Your task to perform on an android device: Add razer blackwidow to the cart on ebay.com Image 0: 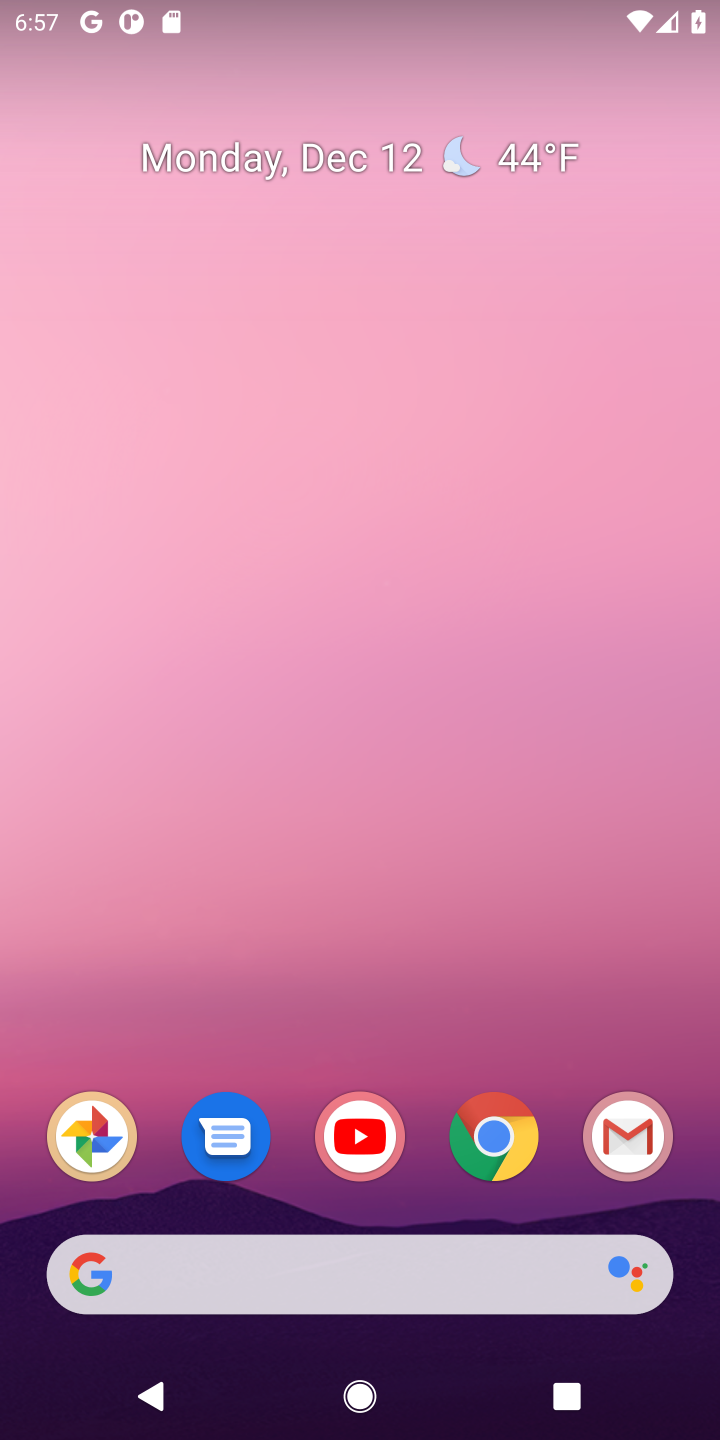
Step 0: click (488, 1144)
Your task to perform on an android device: Add razer blackwidow to the cart on ebay.com Image 1: 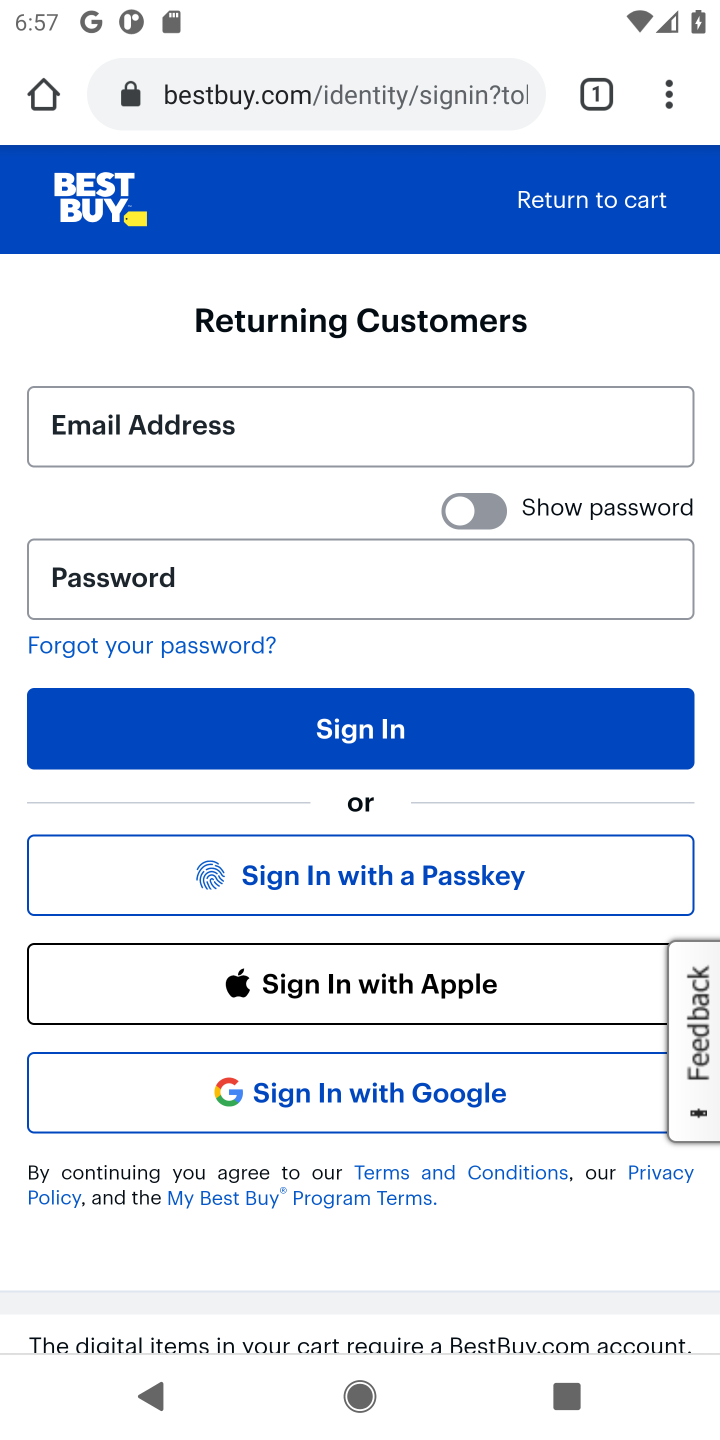
Step 1: click (296, 103)
Your task to perform on an android device: Add razer blackwidow to the cart on ebay.com Image 2: 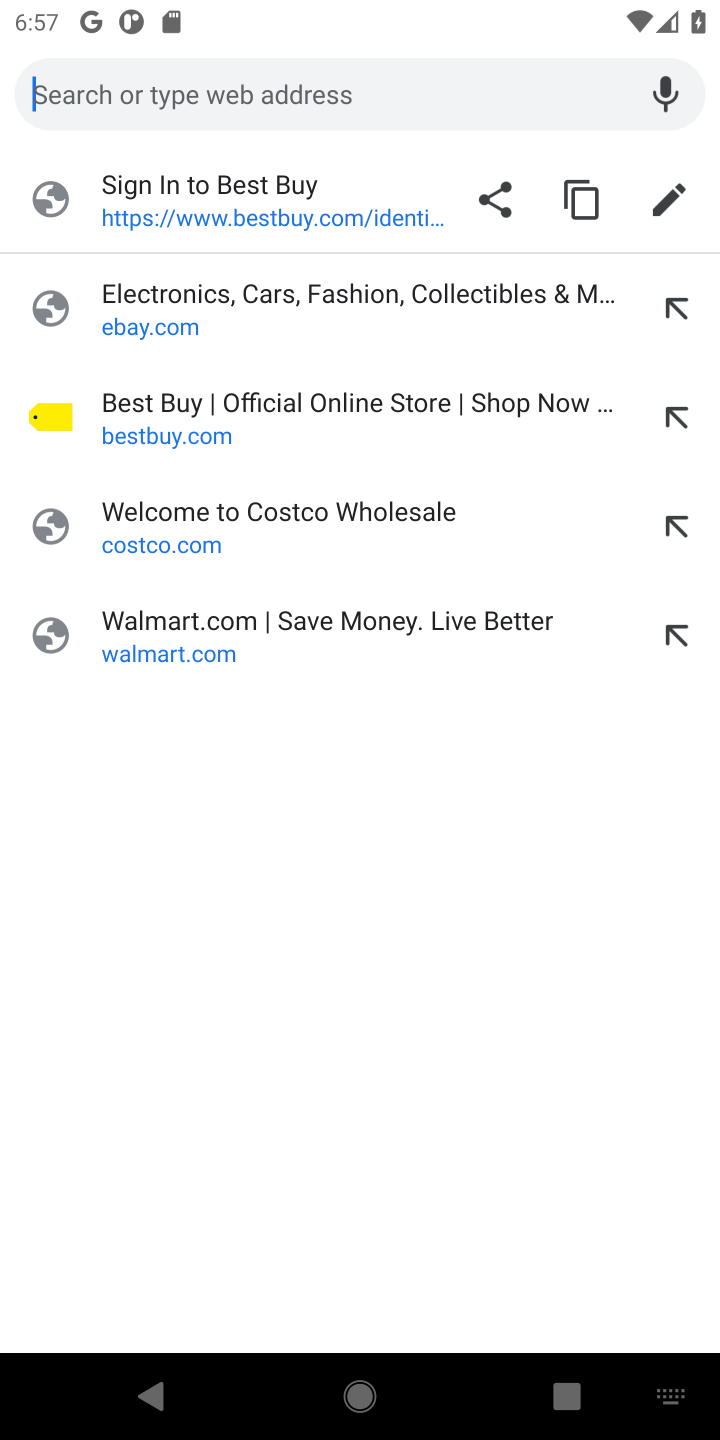
Step 2: click (151, 308)
Your task to perform on an android device: Add razer blackwidow to the cart on ebay.com Image 3: 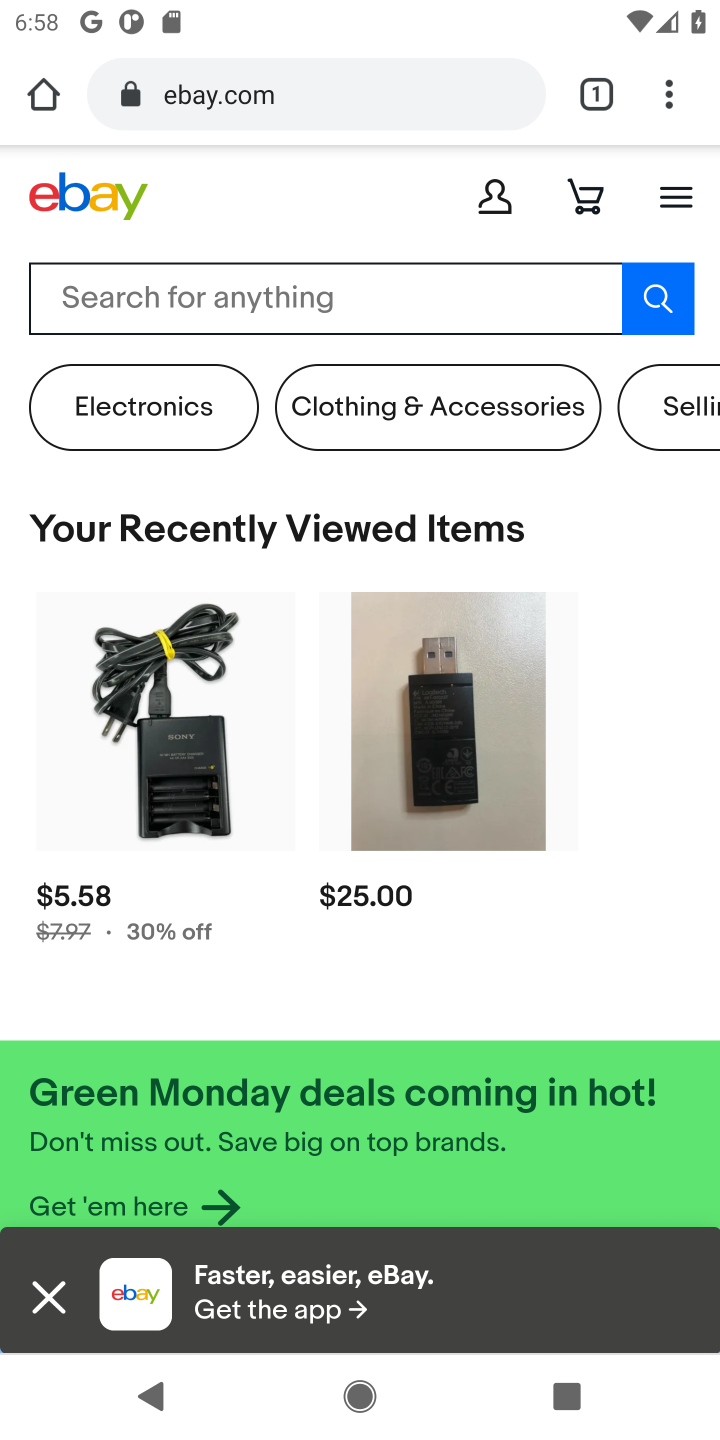
Step 3: click (213, 305)
Your task to perform on an android device: Add razer blackwidow to the cart on ebay.com Image 4: 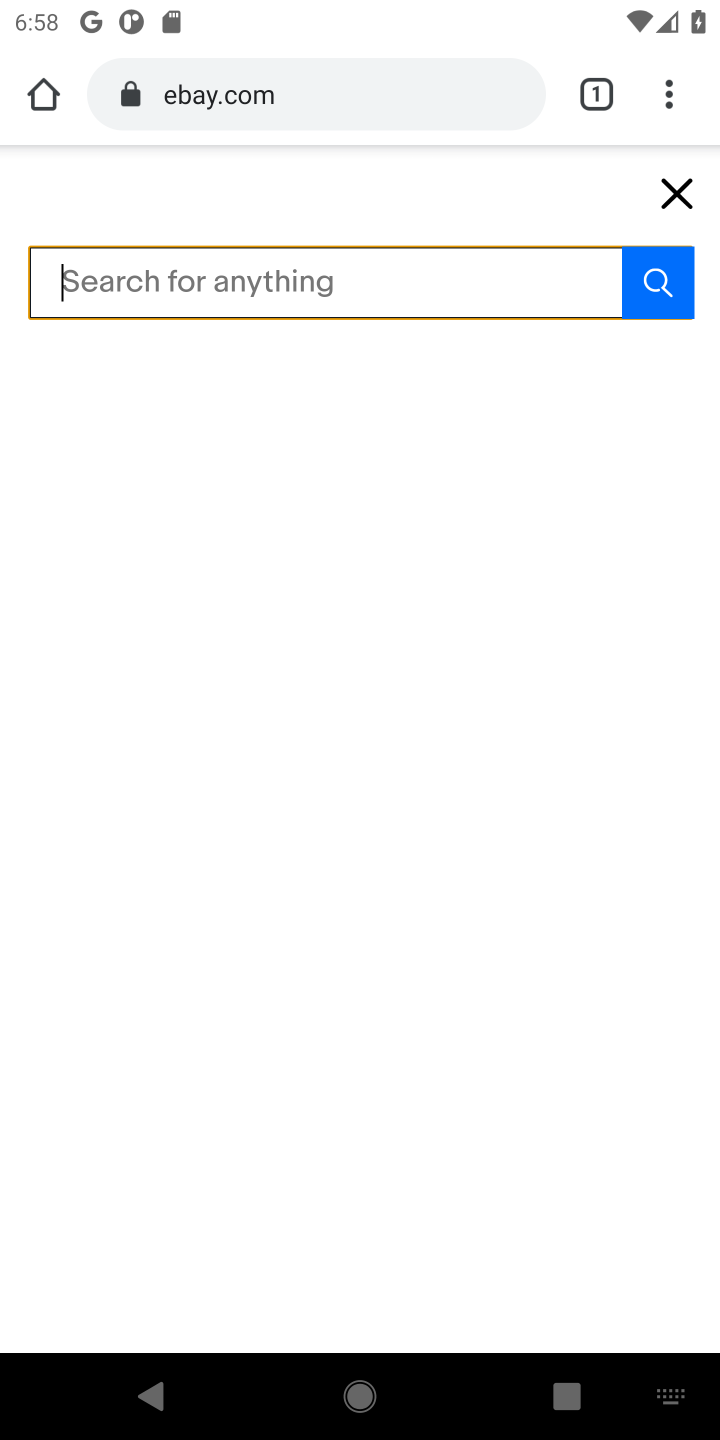
Step 4: type "razer blackwidow"
Your task to perform on an android device: Add razer blackwidow to the cart on ebay.com Image 5: 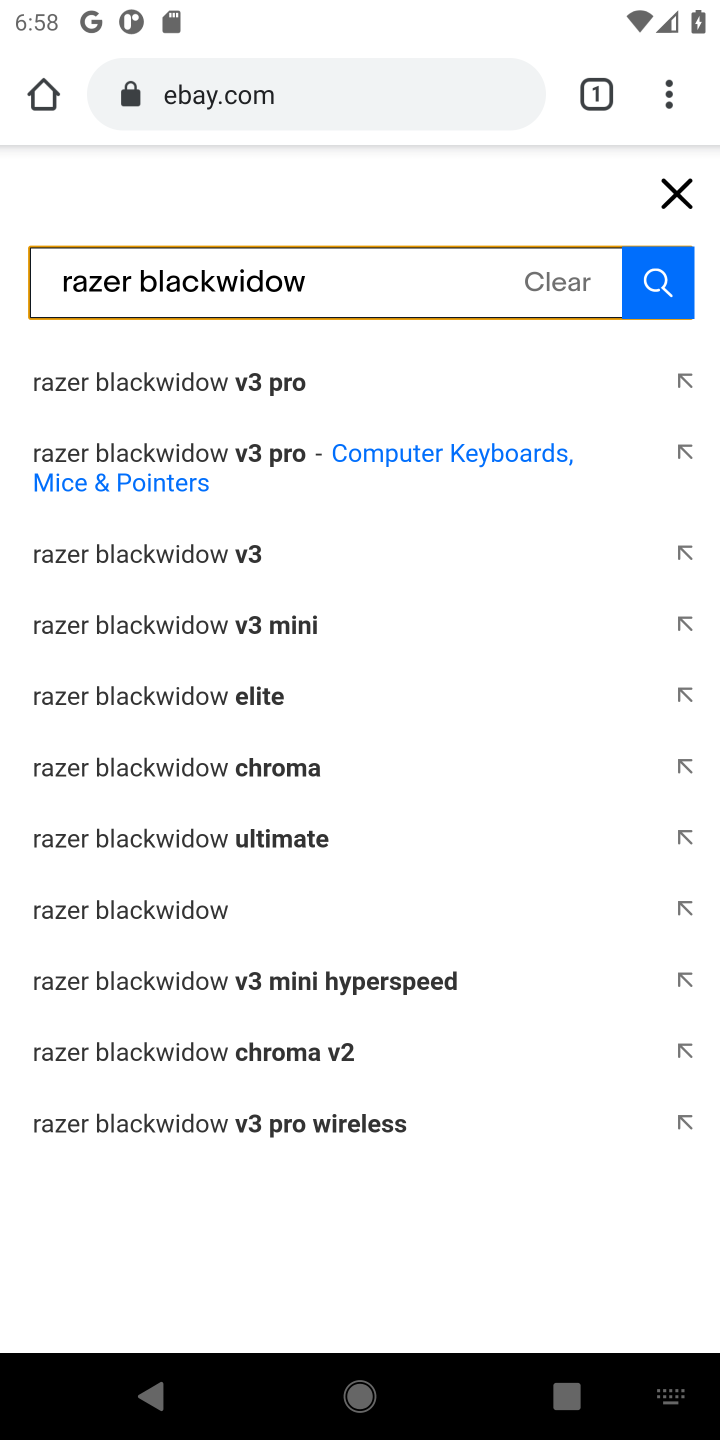
Step 5: click (151, 927)
Your task to perform on an android device: Add razer blackwidow to the cart on ebay.com Image 6: 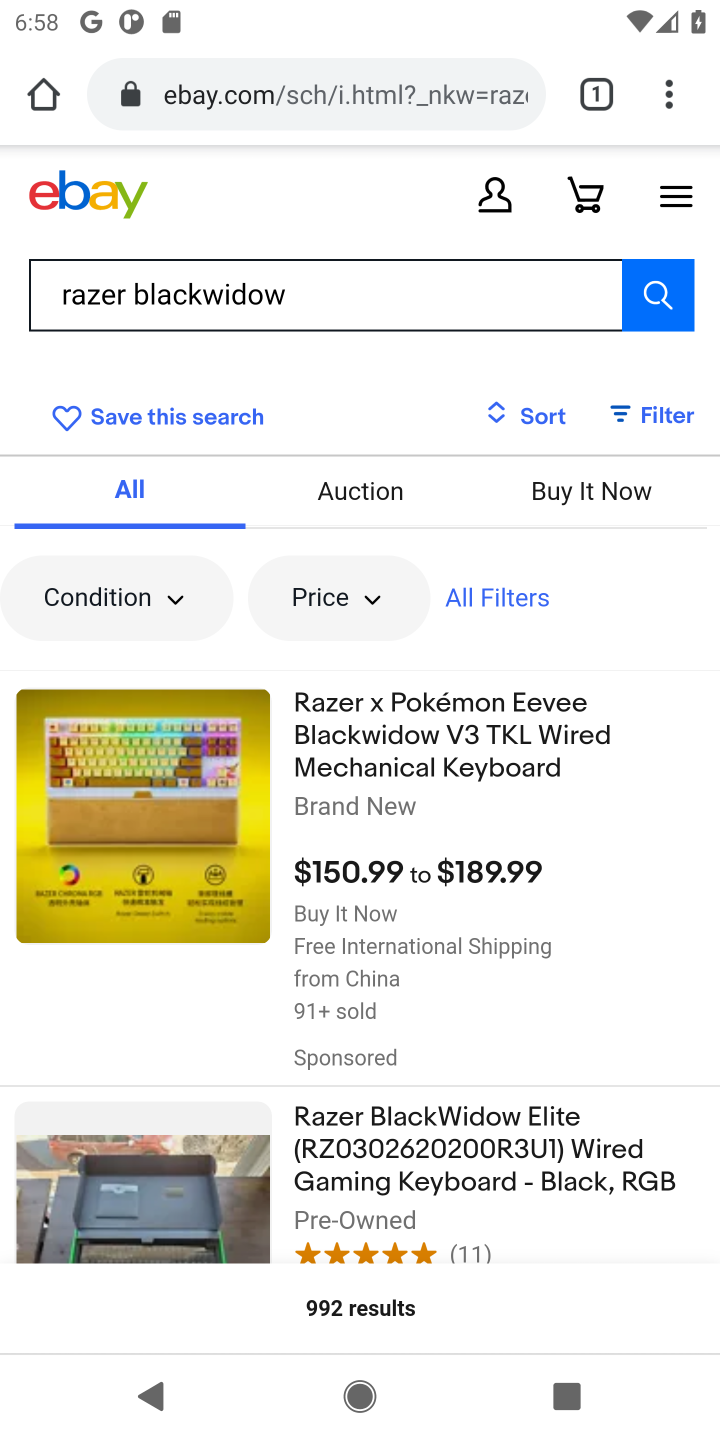
Step 6: drag from (151, 936) to (200, 512)
Your task to perform on an android device: Add razer blackwidow to the cart on ebay.com Image 7: 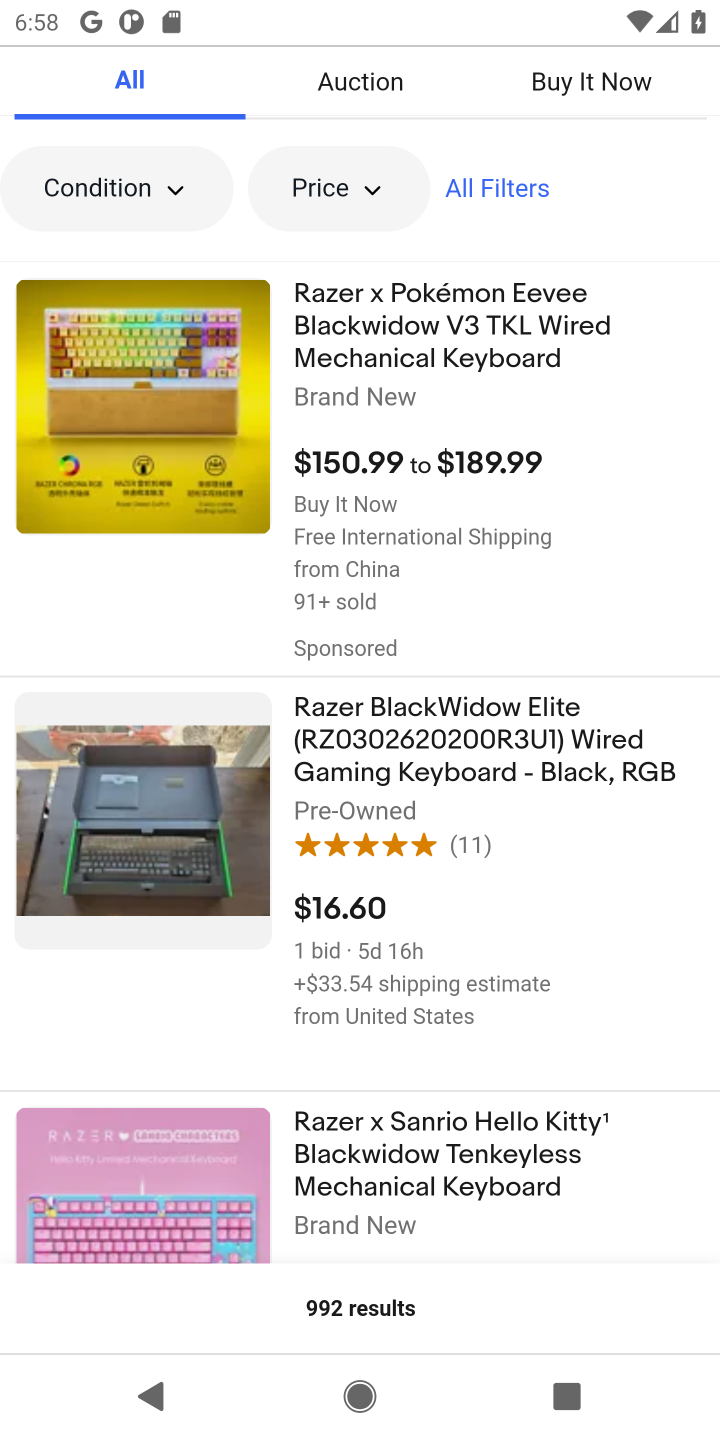
Step 7: drag from (572, 965) to (570, 705)
Your task to perform on an android device: Add razer blackwidow to the cart on ebay.com Image 8: 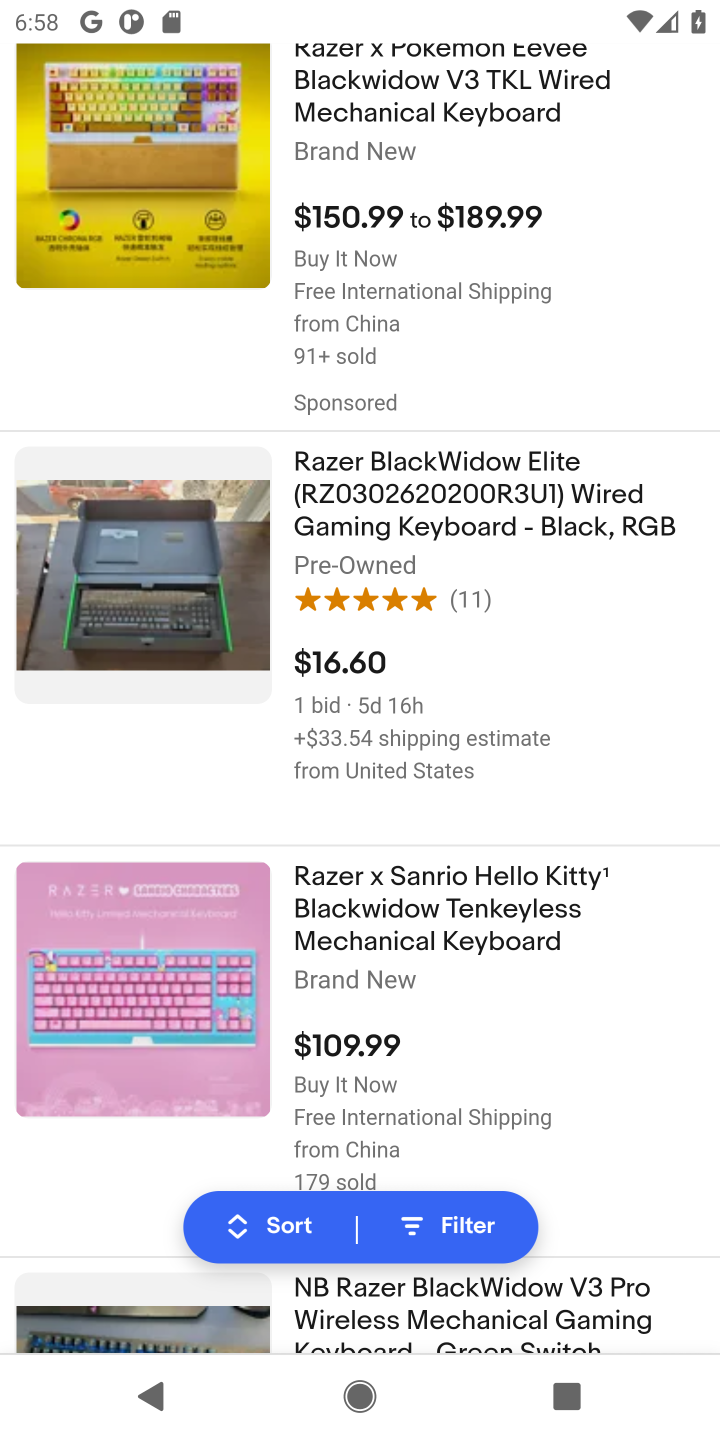
Step 8: drag from (550, 1023) to (548, 544)
Your task to perform on an android device: Add razer blackwidow to the cart on ebay.com Image 9: 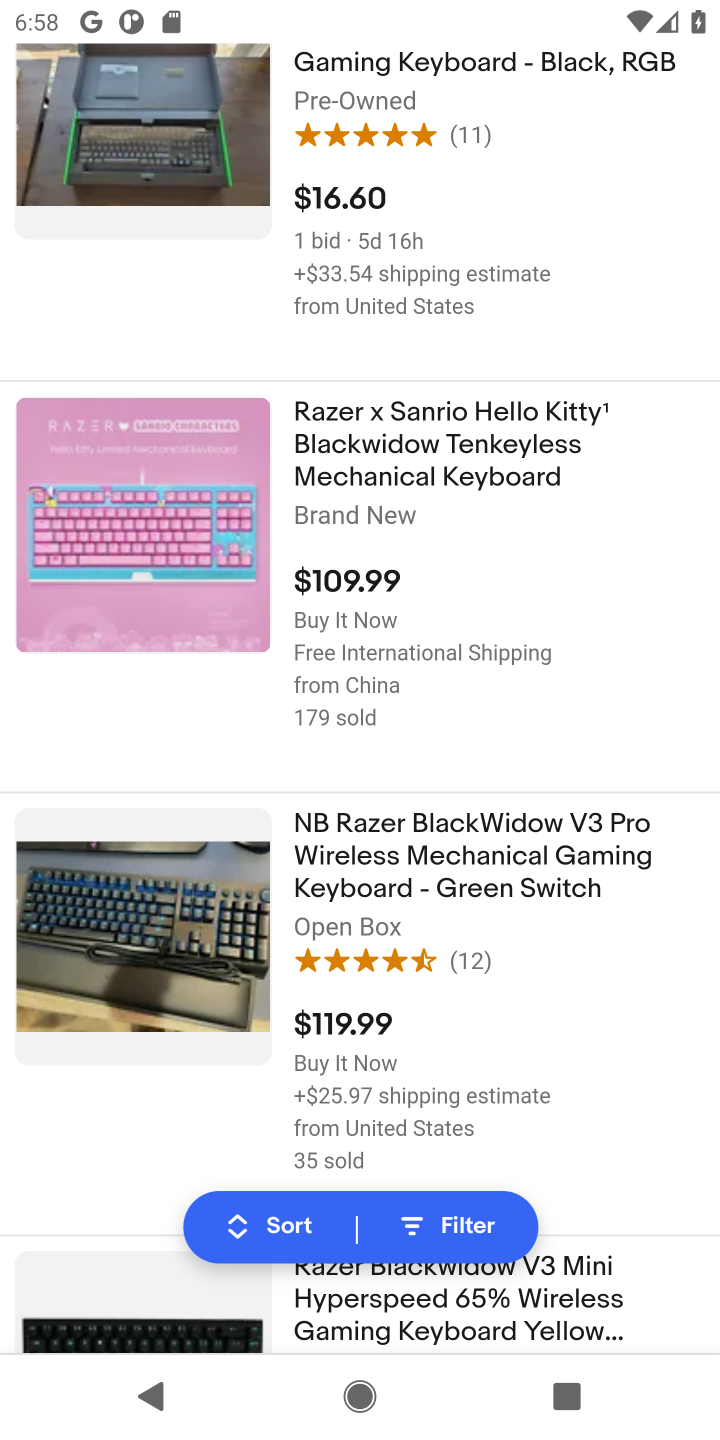
Step 9: click (356, 881)
Your task to perform on an android device: Add razer blackwidow to the cart on ebay.com Image 10: 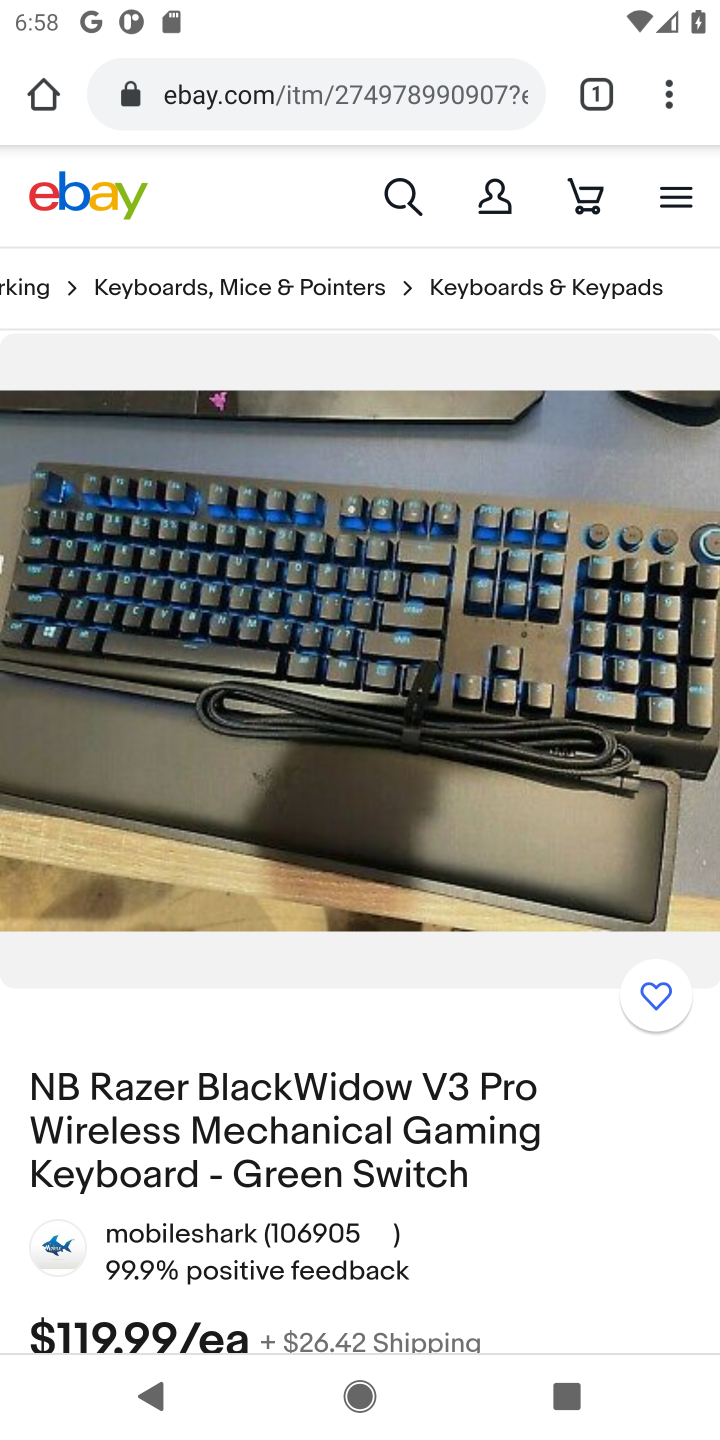
Step 10: drag from (423, 916) to (397, 418)
Your task to perform on an android device: Add razer blackwidow to the cart on ebay.com Image 11: 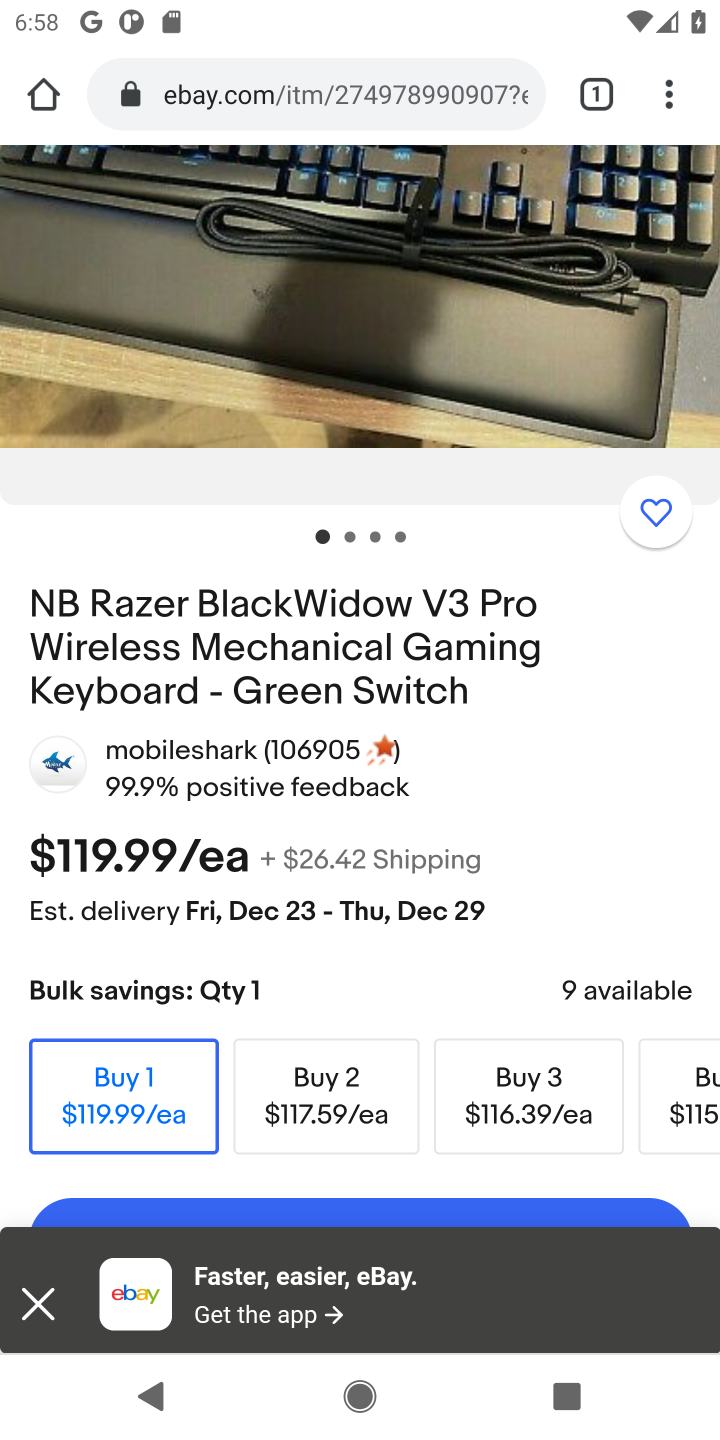
Step 11: drag from (430, 997) to (440, 673)
Your task to perform on an android device: Add razer blackwidow to the cart on ebay.com Image 12: 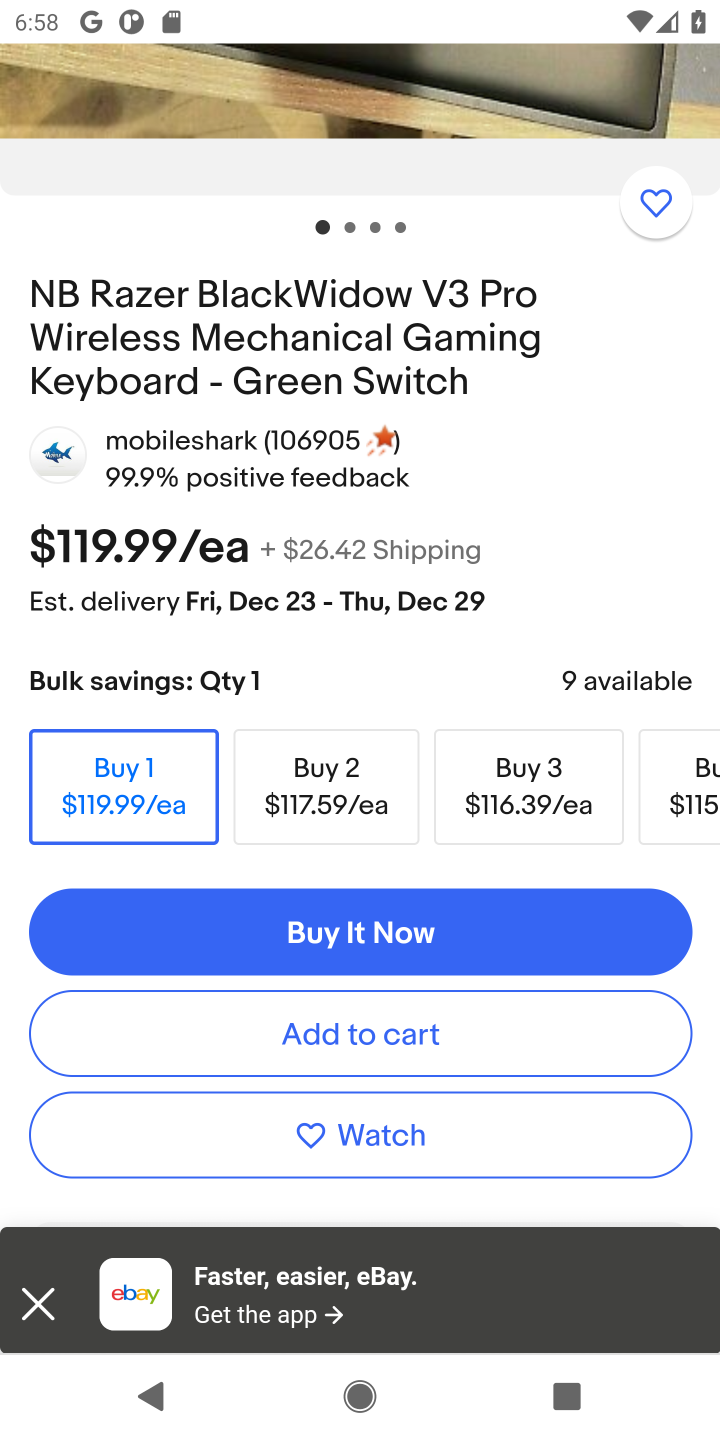
Step 12: click (339, 1032)
Your task to perform on an android device: Add razer blackwidow to the cart on ebay.com Image 13: 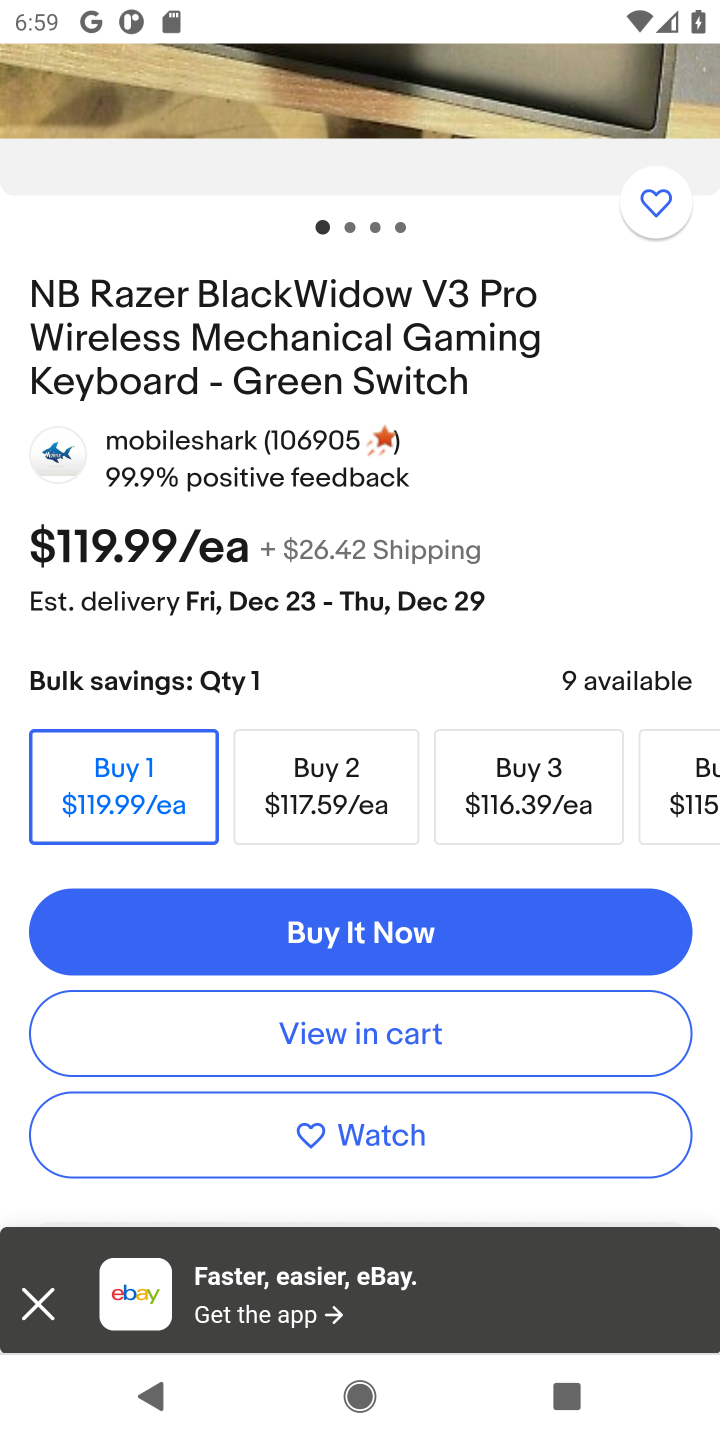
Step 13: task complete